Your task to perform on an android device: change the upload size in google photos Image 0: 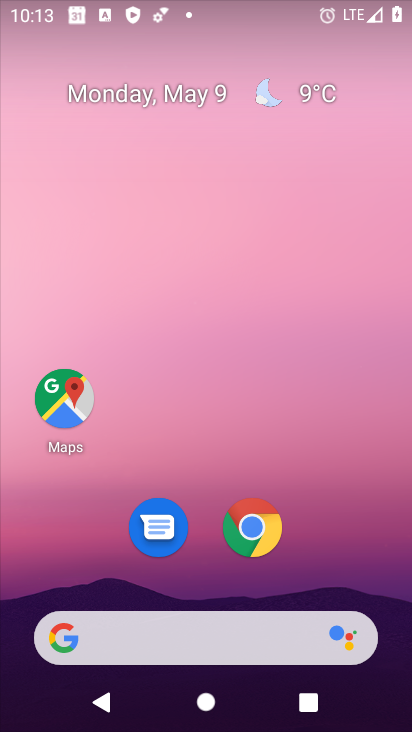
Step 0: drag from (400, 647) to (333, 90)
Your task to perform on an android device: change the upload size in google photos Image 1: 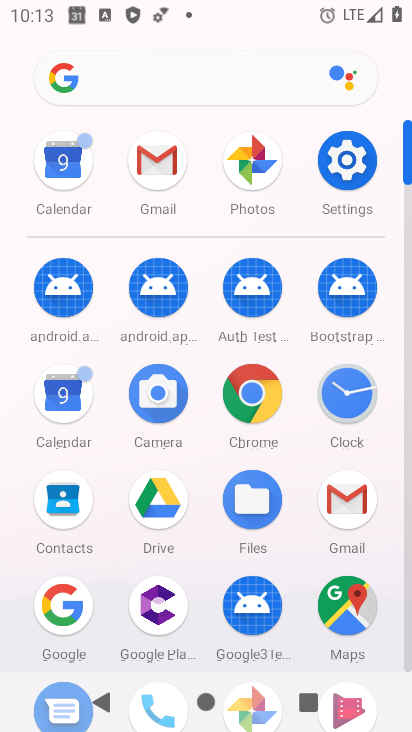
Step 1: click (406, 655)
Your task to perform on an android device: change the upload size in google photos Image 2: 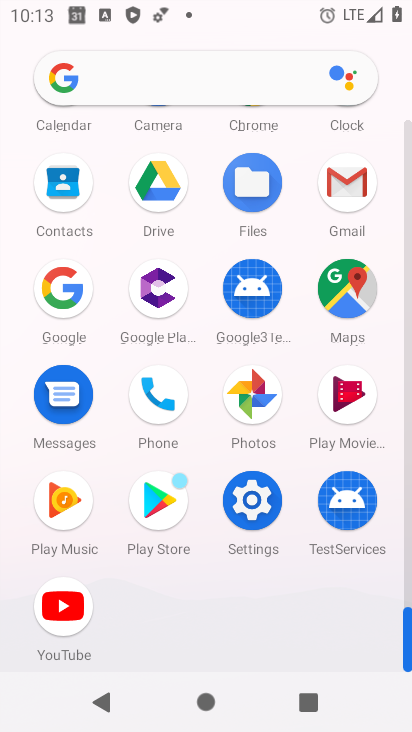
Step 2: click (251, 393)
Your task to perform on an android device: change the upload size in google photos Image 3: 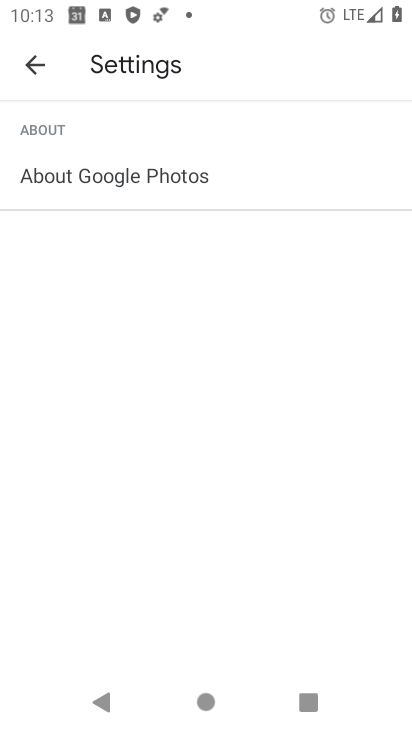
Step 3: press back button
Your task to perform on an android device: change the upload size in google photos Image 4: 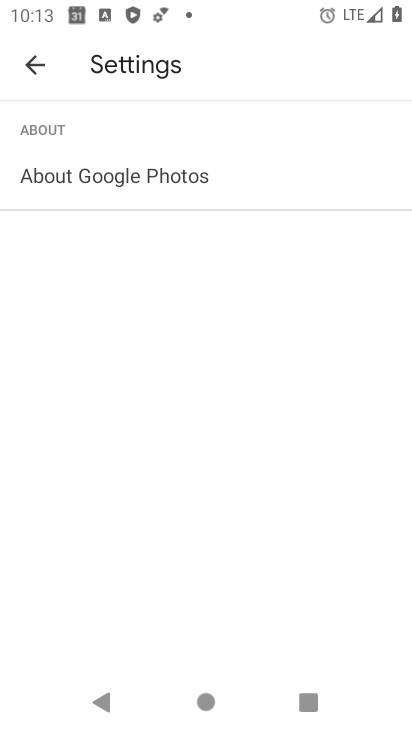
Step 4: press back button
Your task to perform on an android device: change the upload size in google photos Image 5: 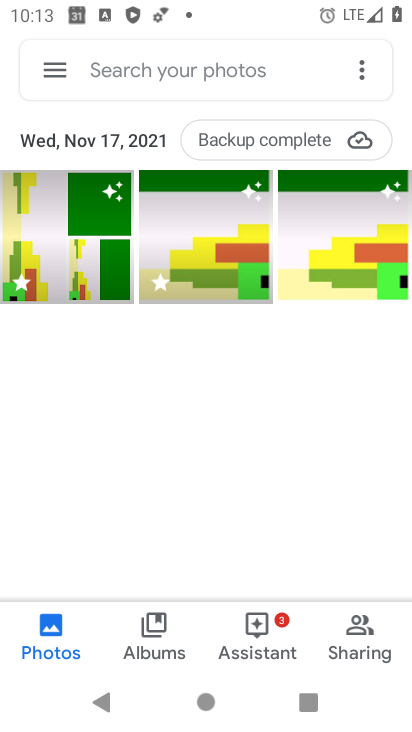
Step 5: click (50, 63)
Your task to perform on an android device: change the upload size in google photos Image 6: 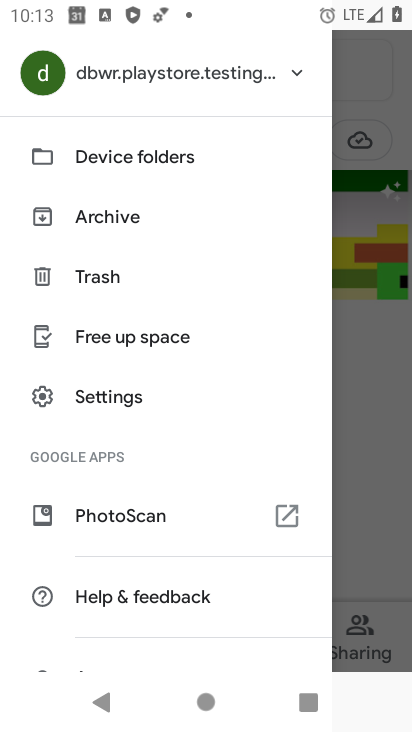
Step 6: click (109, 410)
Your task to perform on an android device: change the upload size in google photos Image 7: 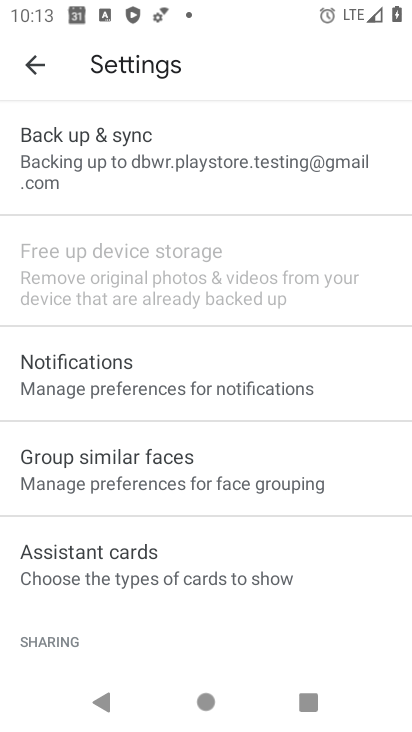
Step 7: click (85, 147)
Your task to perform on an android device: change the upload size in google photos Image 8: 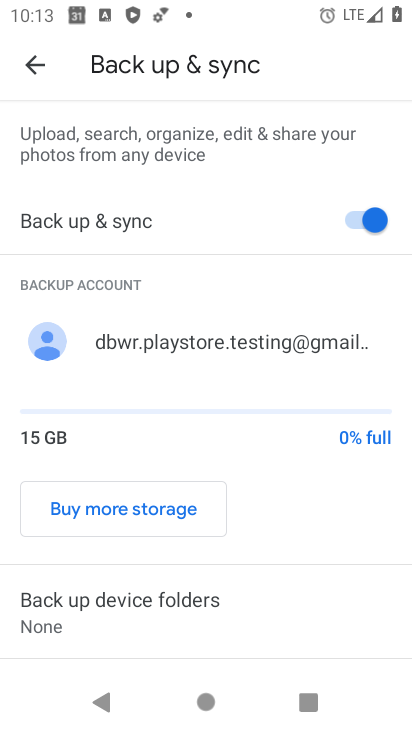
Step 8: drag from (298, 640) to (216, 149)
Your task to perform on an android device: change the upload size in google photos Image 9: 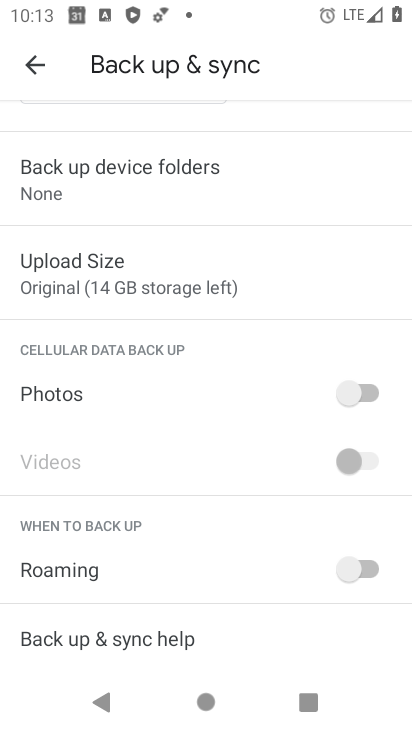
Step 9: click (99, 294)
Your task to perform on an android device: change the upload size in google photos Image 10: 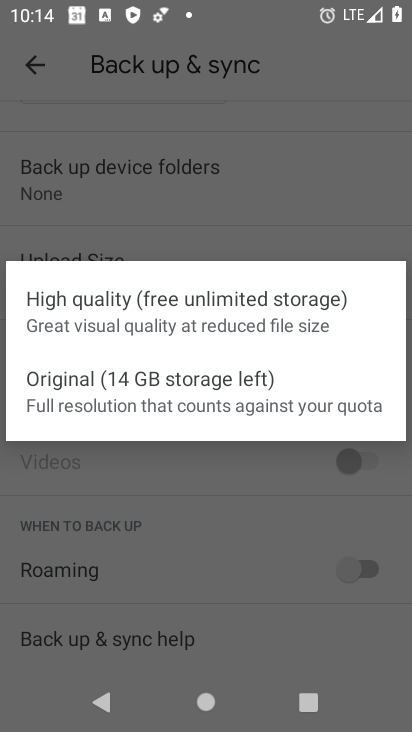
Step 10: click (83, 306)
Your task to perform on an android device: change the upload size in google photos Image 11: 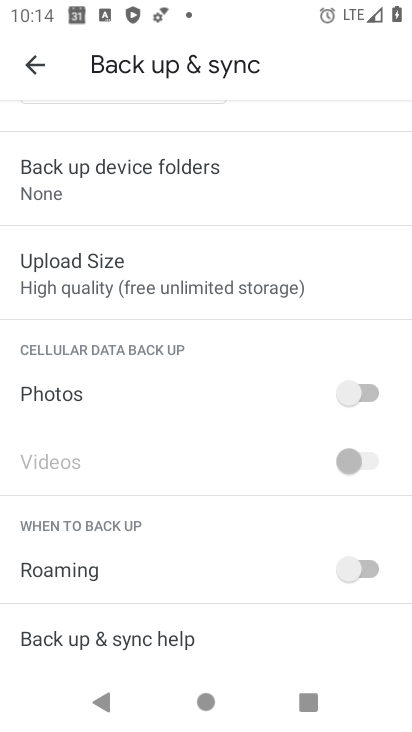
Step 11: task complete